Your task to perform on an android device: turn on notifications settings in the gmail app Image 0: 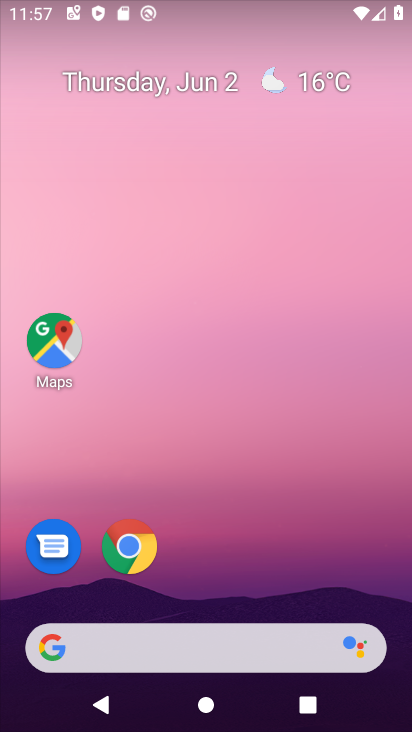
Step 0: drag from (245, 543) to (191, 157)
Your task to perform on an android device: turn on notifications settings in the gmail app Image 1: 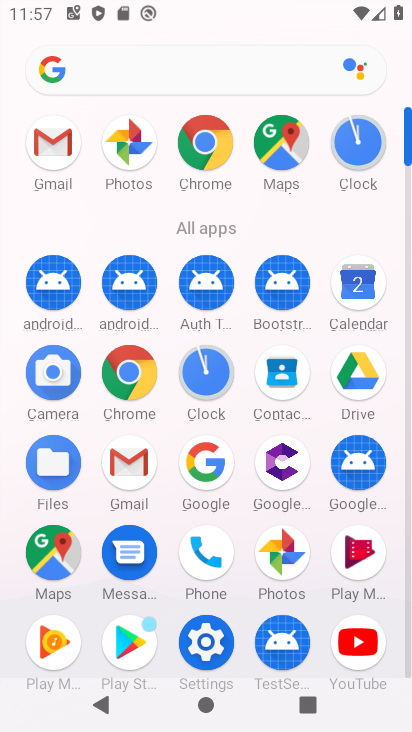
Step 1: click (47, 145)
Your task to perform on an android device: turn on notifications settings in the gmail app Image 2: 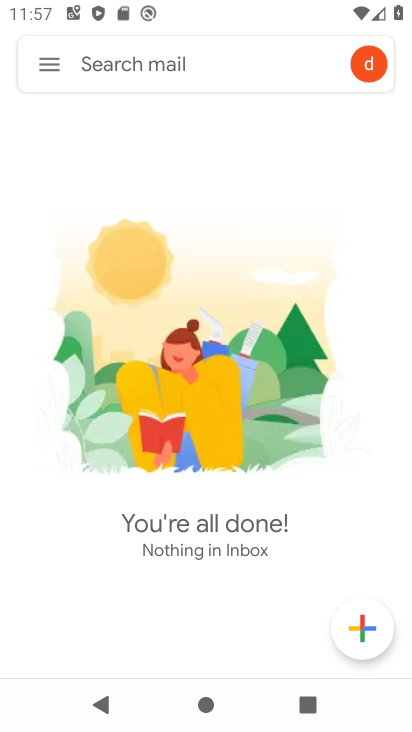
Step 2: click (39, 68)
Your task to perform on an android device: turn on notifications settings in the gmail app Image 3: 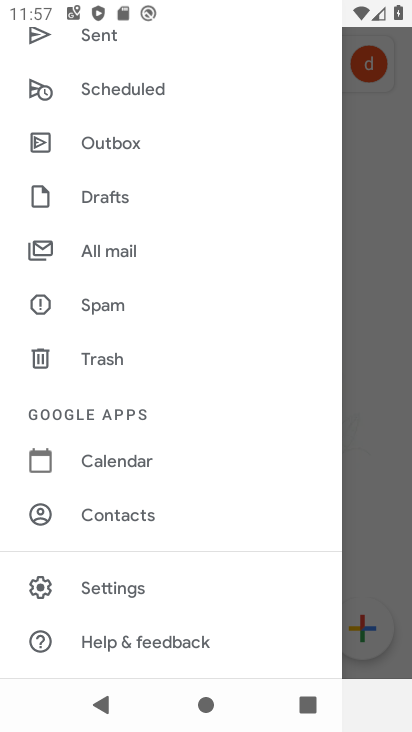
Step 3: click (117, 584)
Your task to perform on an android device: turn on notifications settings in the gmail app Image 4: 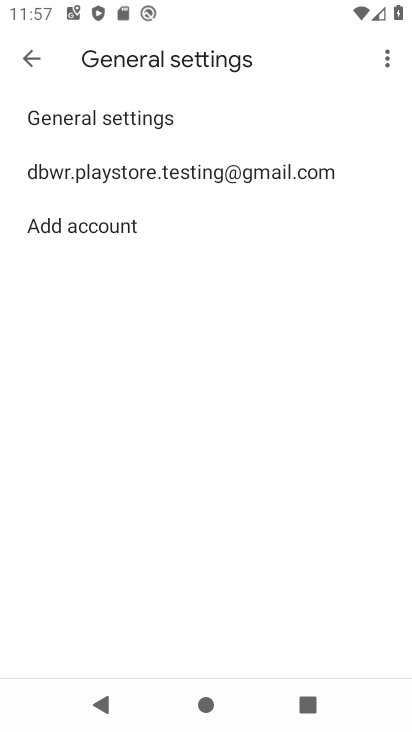
Step 4: click (130, 117)
Your task to perform on an android device: turn on notifications settings in the gmail app Image 5: 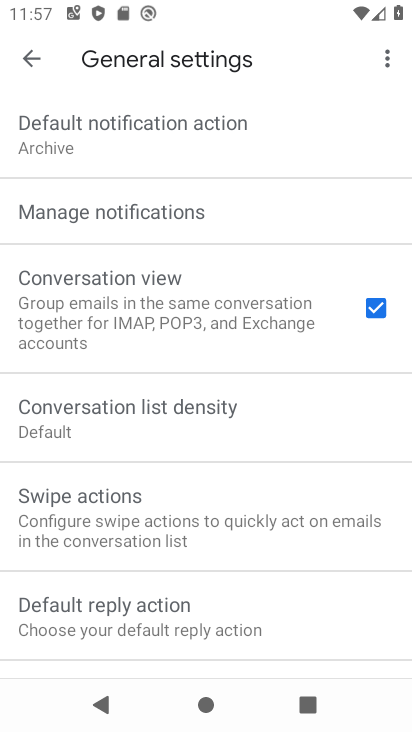
Step 5: click (151, 202)
Your task to perform on an android device: turn on notifications settings in the gmail app Image 6: 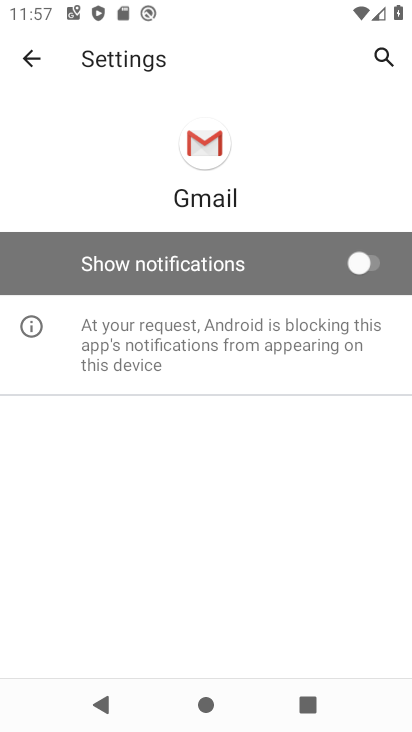
Step 6: click (354, 258)
Your task to perform on an android device: turn on notifications settings in the gmail app Image 7: 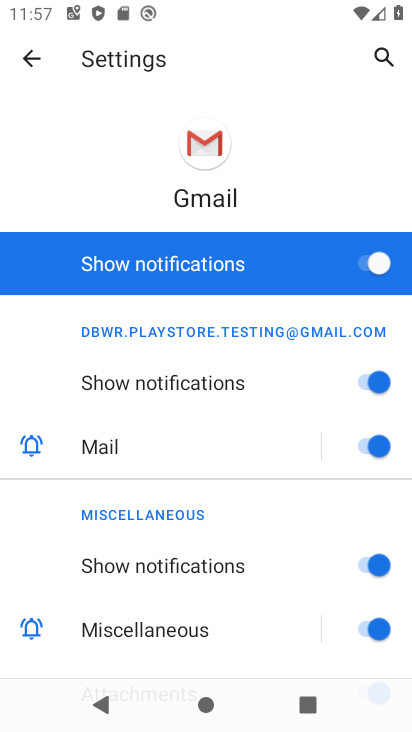
Step 7: task complete